Your task to perform on an android device: Do I have any events this weekend? Image 0: 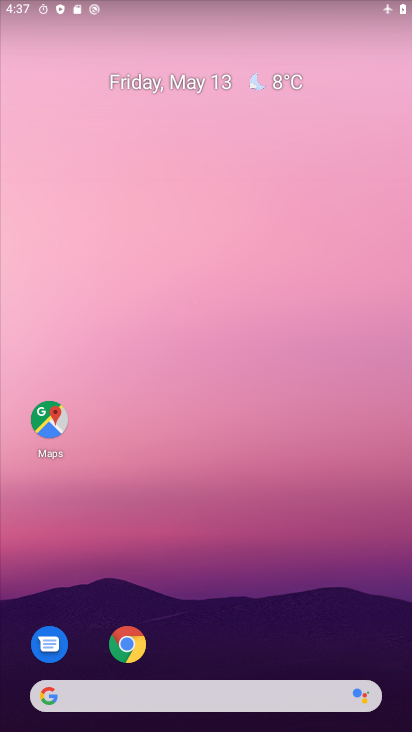
Step 0: drag from (235, 645) to (240, 191)
Your task to perform on an android device: Do I have any events this weekend? Image 1: 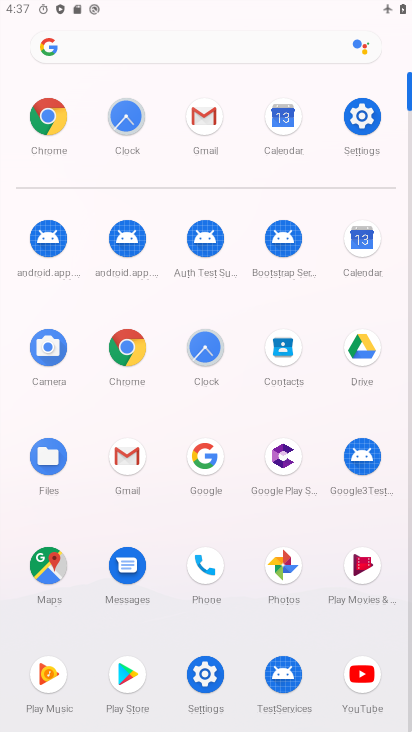
Step 1: click (359, 236)
Your task to perform on an android device: Do I have any events this weekend? Image 2: 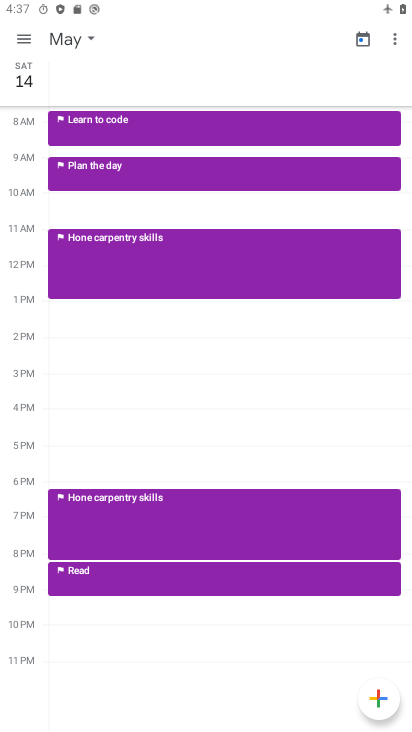
Step 2: click (28, 37)
Your task to perform on an android device: Do I have any events this weekend? Image 3: 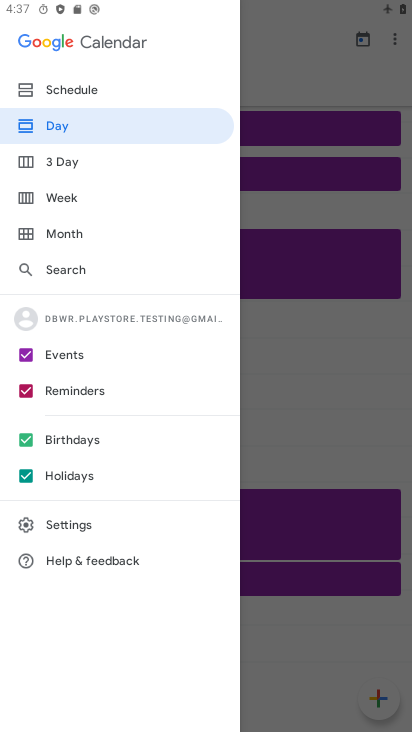
Step 3: click (131, 198)
Your task to perform on an android device: Do I have any events this weekend? Image 4: 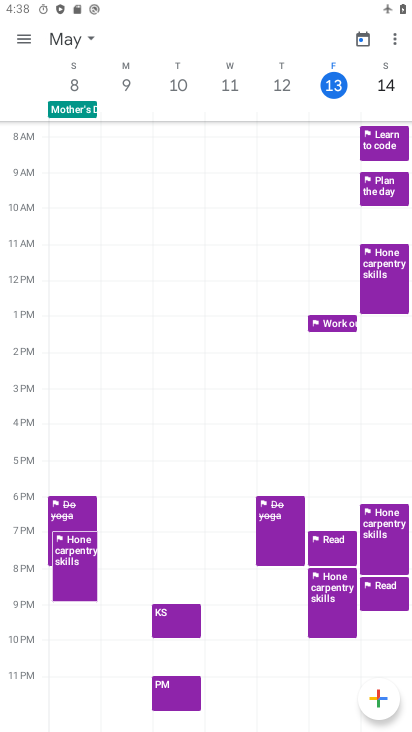
Step 4: task complete